Your task to perform on an android device: Go to internet settings Image 0: 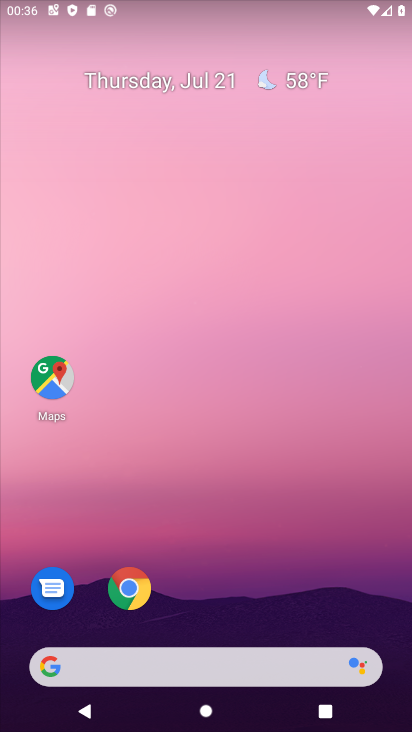
Step 0: click (193, 71)
Your task to perform on an android device: Go to internet settings Image 1: 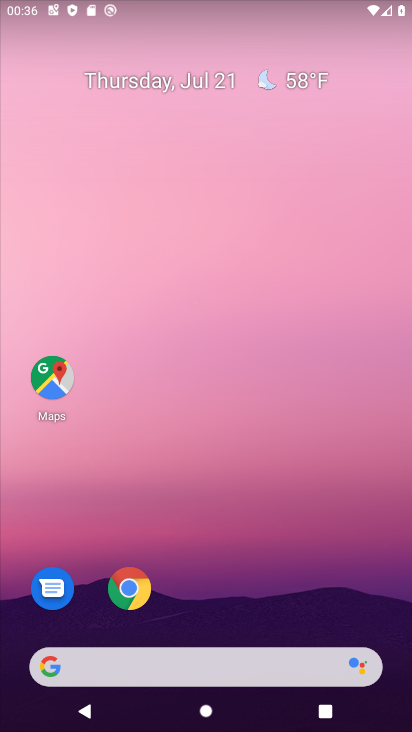
Step 1: drag from (231, 609) to (236, 7)
Your task to perform on an android device: Go to internet settings Image 2: 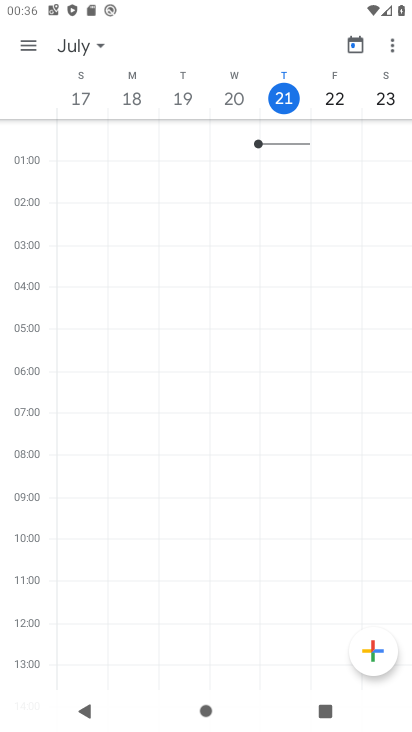
Step 2: press home button
Your task to perform on an android device: Go to internet settings Image 3: 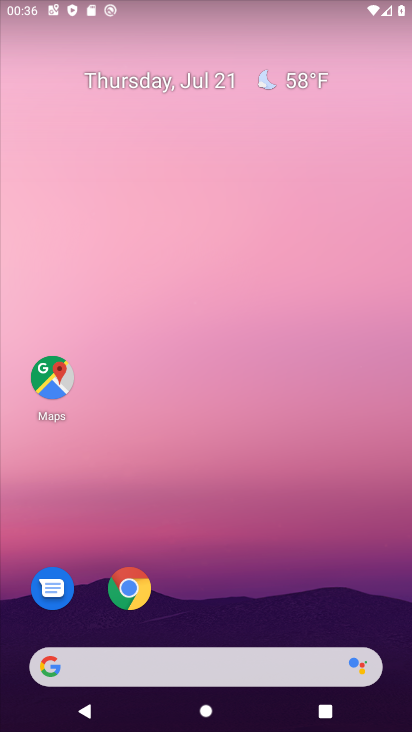
Step 3: drag from (205, 536) to (190, 0)
Your task to perform on an android device: Go to internet settings Image 4: 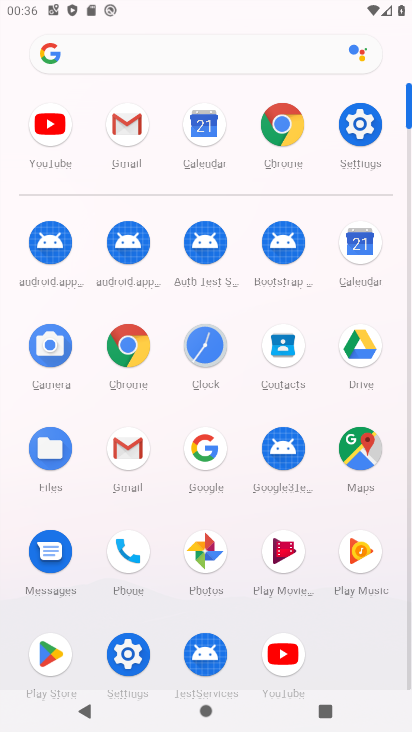
Step 4: click (366, 150)
Your task to perform on an android device: Go to internet settings Image 5: 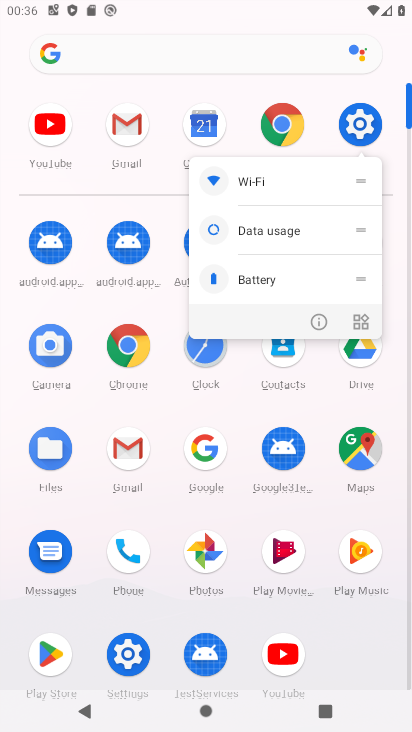
Step 5: click (361, 126)
Your task to perform on an android device: Go to internet settings Image 6: 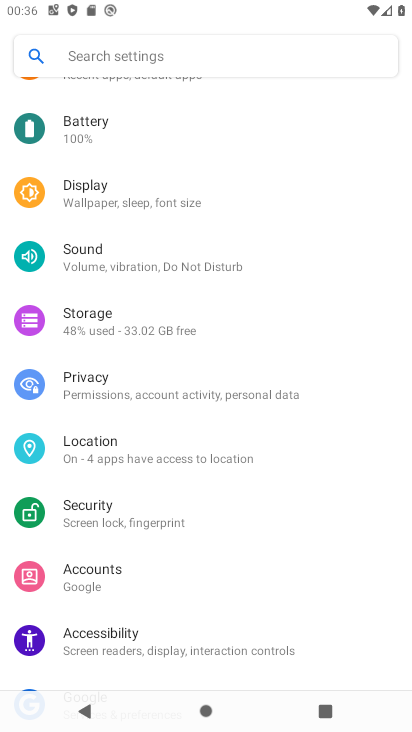
Step 6: drag from (169, 153) to (167, 638)
Your task to perform on an android device: Go to internet settings Image 7: 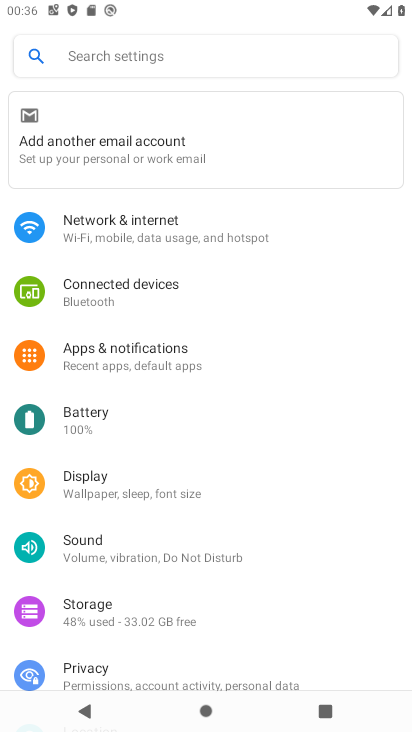
Step 7: click (143, 239)
Your task to perform on an android device: Go to internet settings Image 8: 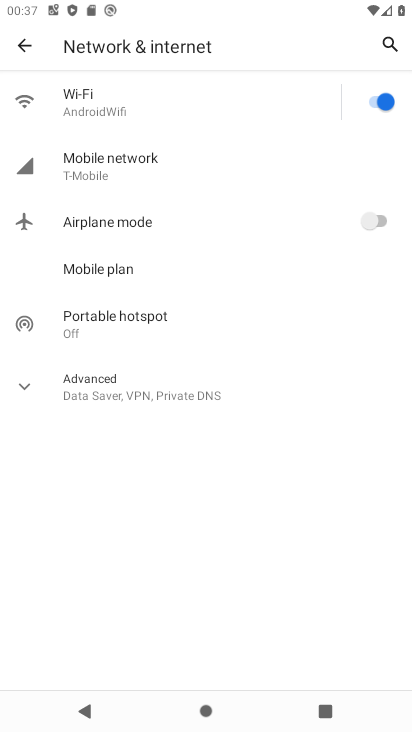
Step 8: task complete